Your task to perform on an android device: turn off wifi Image 0: 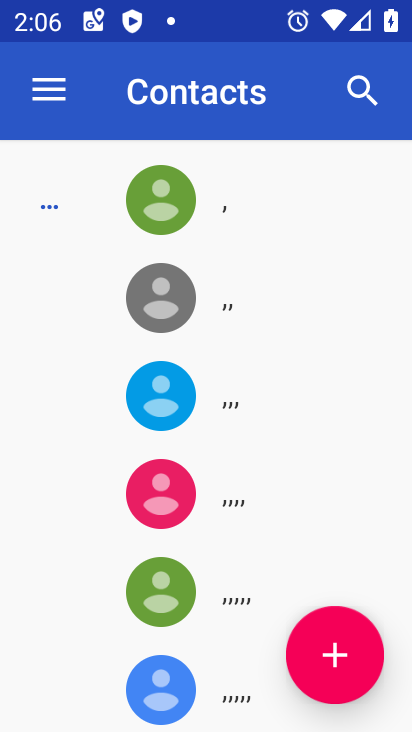
Step 0: press back button
Your task to perform on an android device: turn off wifi Image 1: 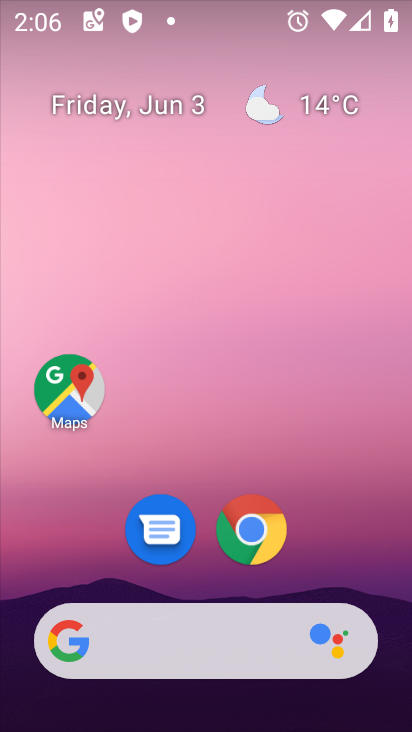
Step 1: drag from (365, 563) to (365, 222)
Your task to perform on an android device: turn off wifi Image 2: 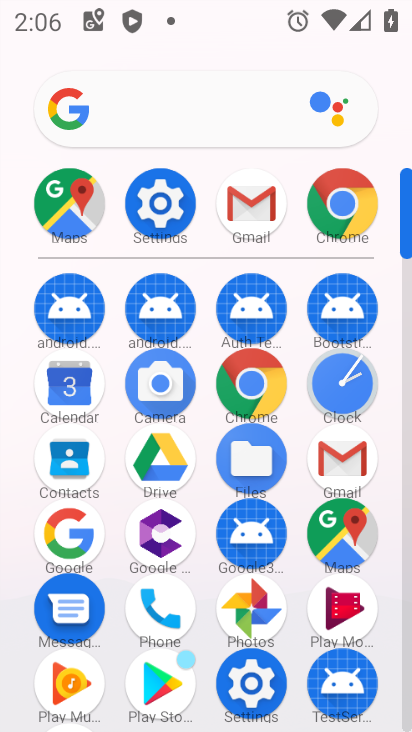
Step 2: click (170, 211)
Your task to perform on an android device: turn off wifi Image 3: 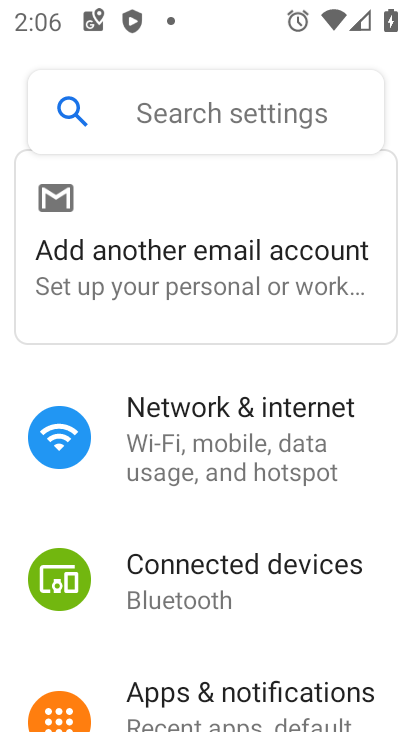
Step 3: drag from (347, 500) to (373, 408)
Your task to perform on an android device: turn off wifi Image 4: 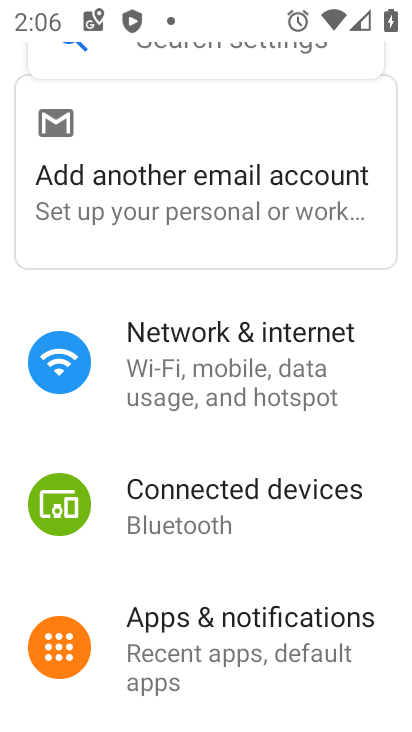
Step 4: drag from (364, 541) to (380, 432)
Your task to perform on an android device: turn off wifi Image 5: 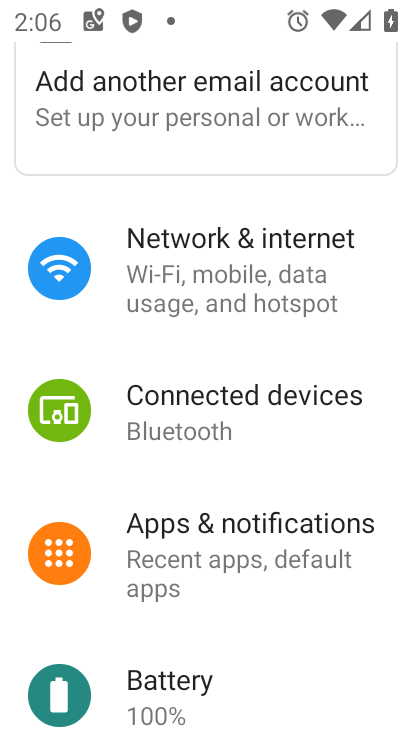
Step 5: drag from (359, 572) to (375, 439)
Your task to perform on an android device: turn off wifi Image 6: 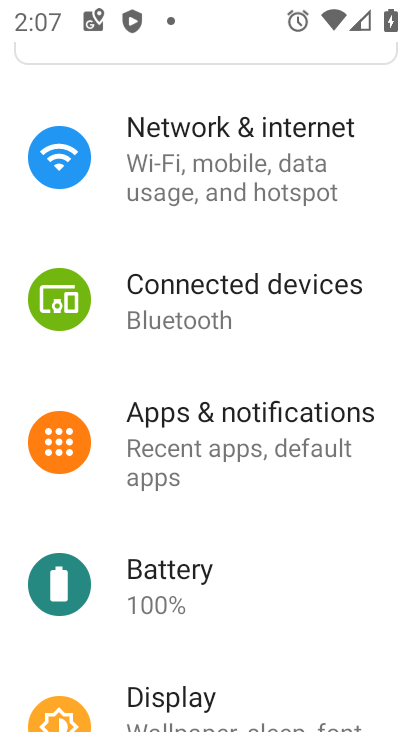
Step 6: drag from (345, 565) to (361, 440)
Your task to perform on an android device: turn off wifi Image 7: 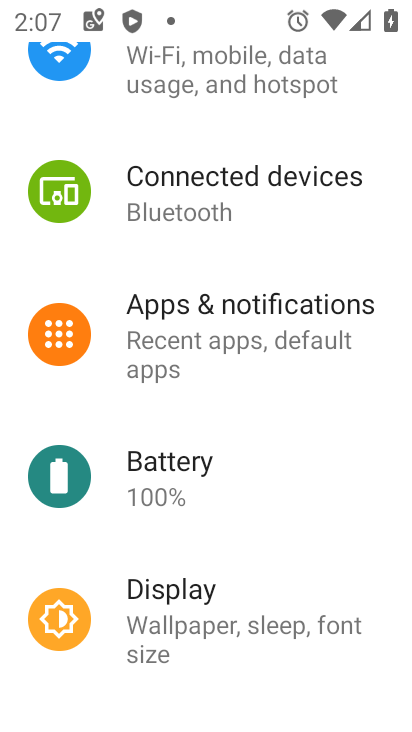
Step 7: drag from (328, 559) to (338, 430)
Your task to perform on an android device: turn off wifi Image 8: 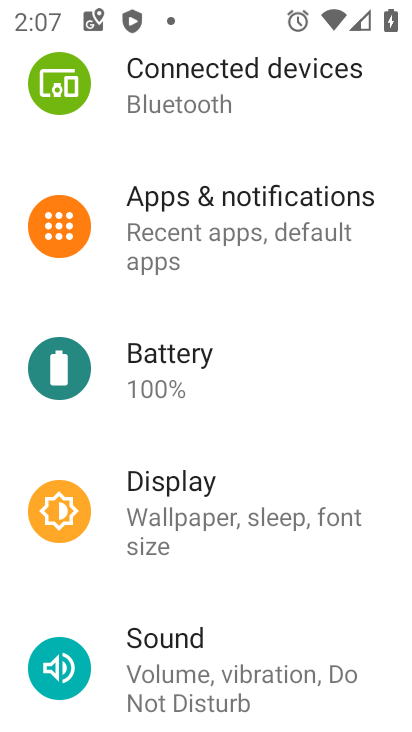
Step 8: drag from (329, 578) to (345, 438)
Your task to perform on an android device: turn off wifi Image 9: 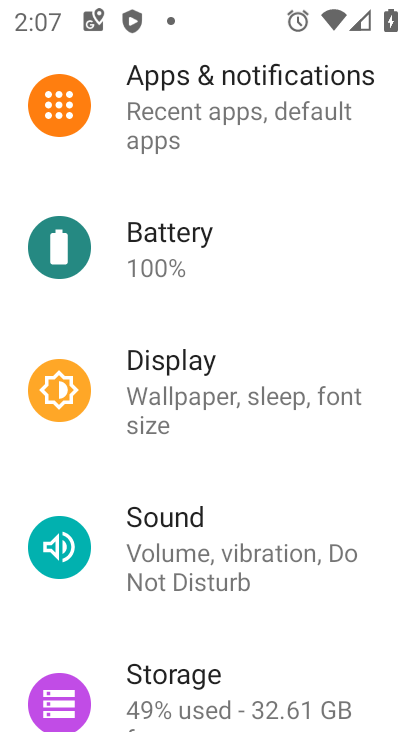
Step 9: drag from (356, 610) to (376, 464)
Your task to perform on an android device: turn off wifi Image 10: 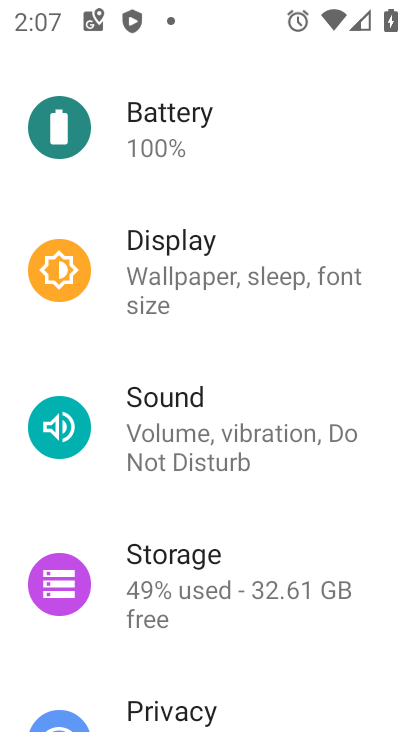
Step 10: drag from (369, 570) to (380, 404)
Your task to perform on an android device: turn off wifi Image 11: 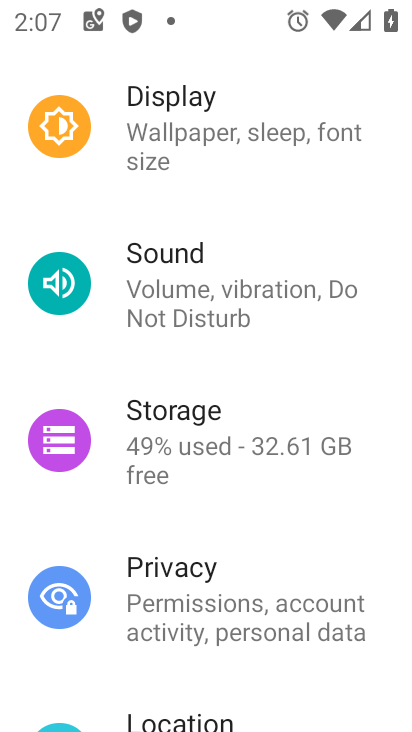
Step 11: drag from (369, 217) to (380, 320)
Your task to perform on an android device: turn off wifi Image 12: 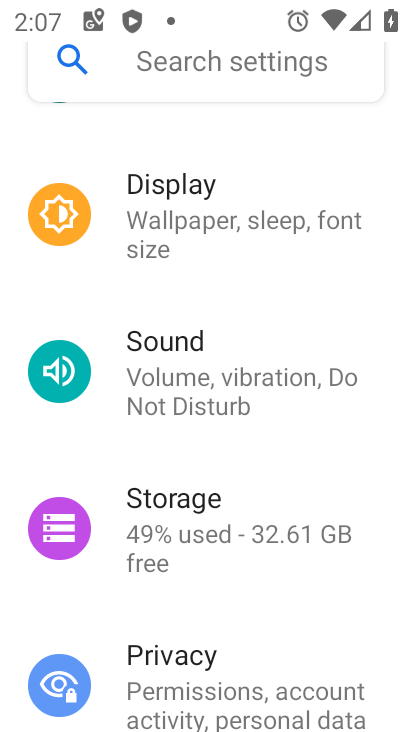
Step 12: drag from (379, 196) to (378, 323)
Your task to perform on an android device: turn off wifi Image 13: 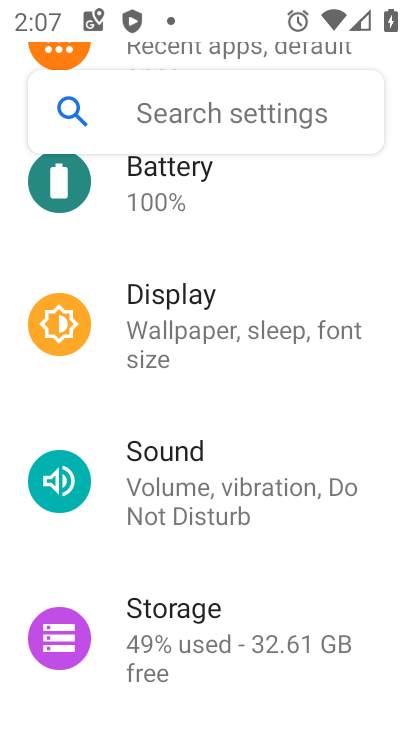
Step 13: drag from (369, 203) to (368, 327)
Your task to perform on an android device: turn off wifi Image 14: 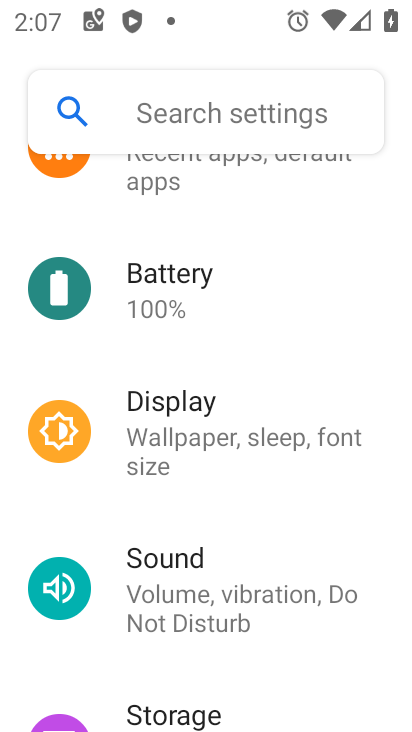
Step 14: drag from (361, 208) to (358, 356)
Your task to perform on an android device: turn off wifi Image 15: 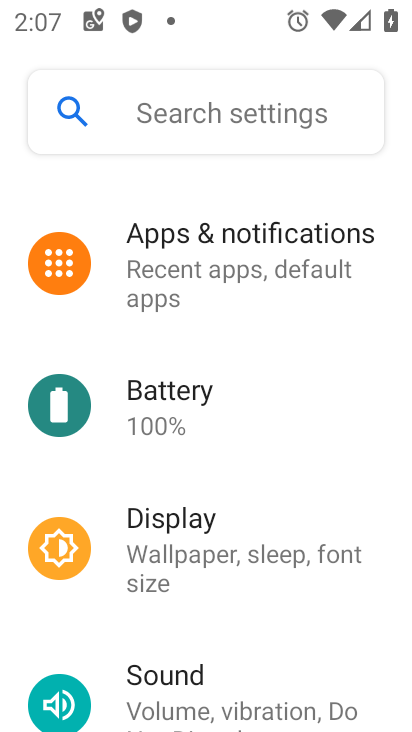
Step 15: drag from (365, 195) to (360, 342)
Your task to perform on an android device: turn off wifi Image 16: 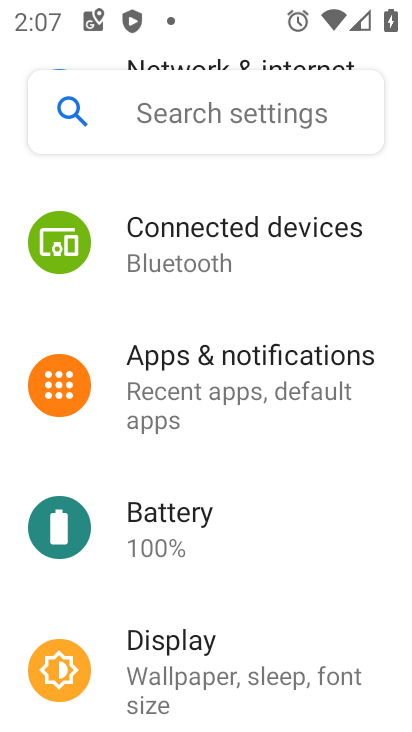
Step 16: drag from (378, 180) to (372, 342)
Your task to perform on an android device: turn off wifi Image 17: 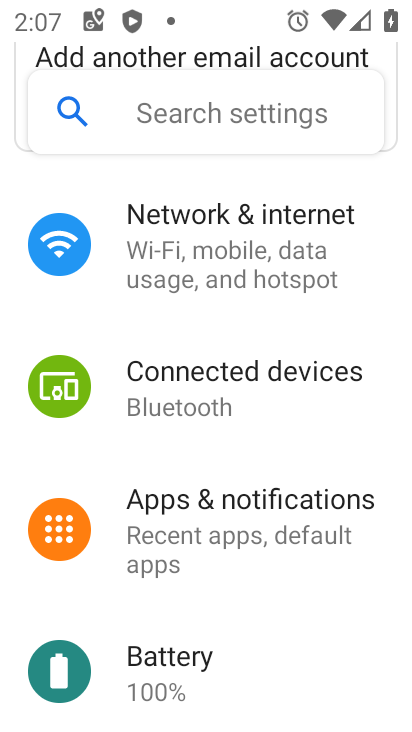
Step 17: drag from (379, 177) to (372, 310)
Your task to perform on an android device: turn off wifi Image 18: 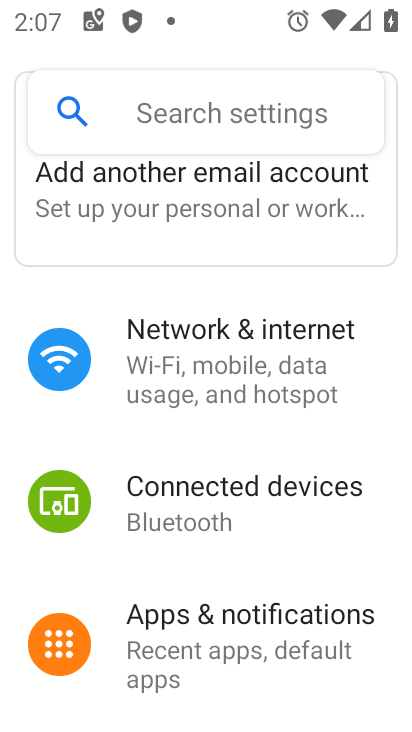
Step 18: click (271, 376)
Your task to perform on an android device: turn off wifi Image 19: 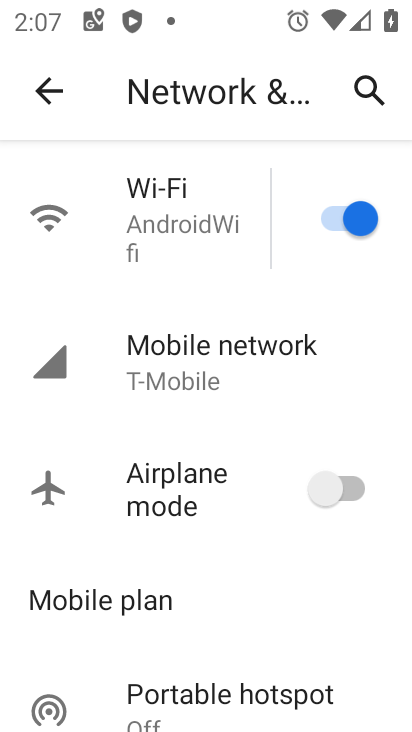
Step 19: click (365, 214)
Your task to perform on an android device: turn off wifi Image 20: 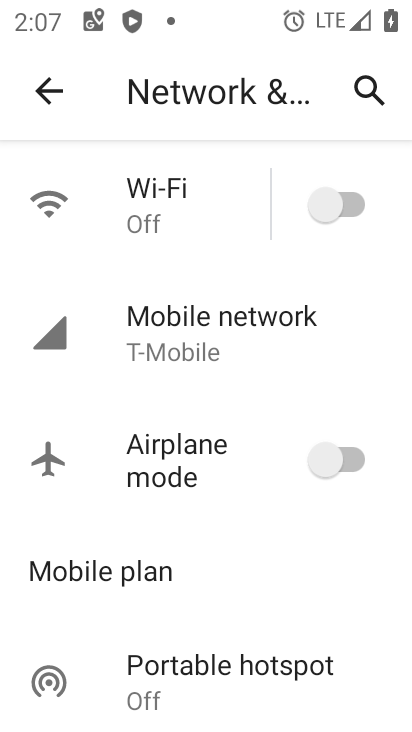
Step 20: task complete